Your task to perform on an android device: Go to Maps Image 0: 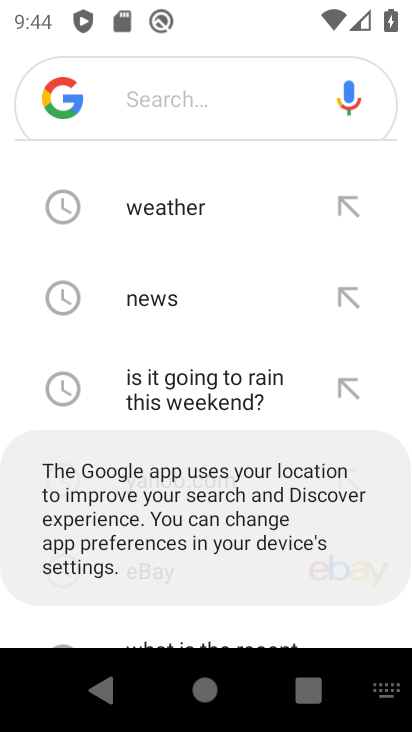
Step 0: press home button
Your task to perform on an android device: Go to Maps Image 1: 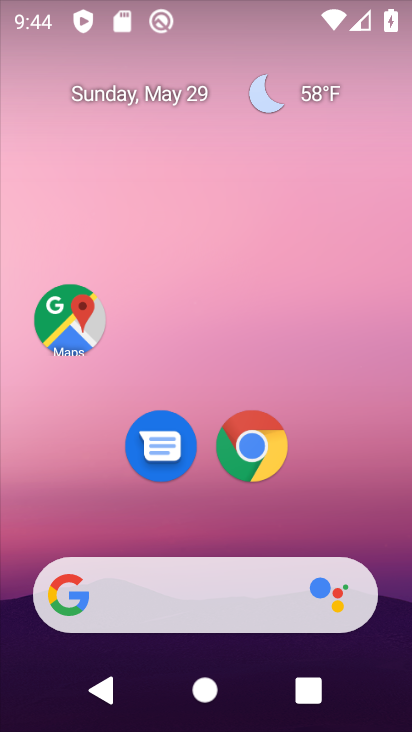
Step 1: click (71, 327)
Your task to perform on an android device: Go to Maps Image 2: 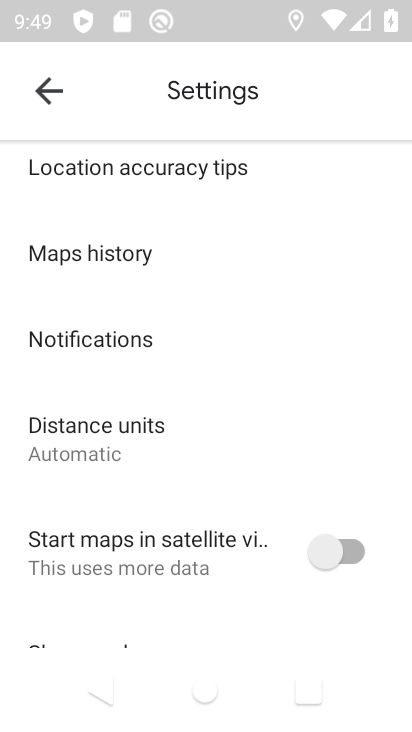
Step 2: press home button
Your task to perform on an android device: Go to Maps Image 3: 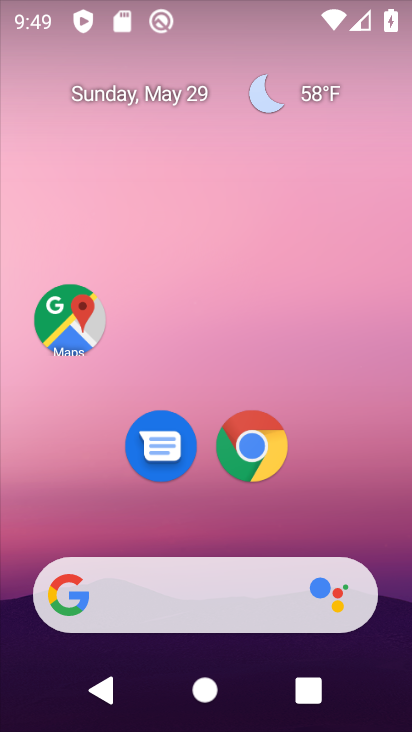
Step 3: click (74, 325)
Your task to perform on an android device: Go to Maps Image 4: 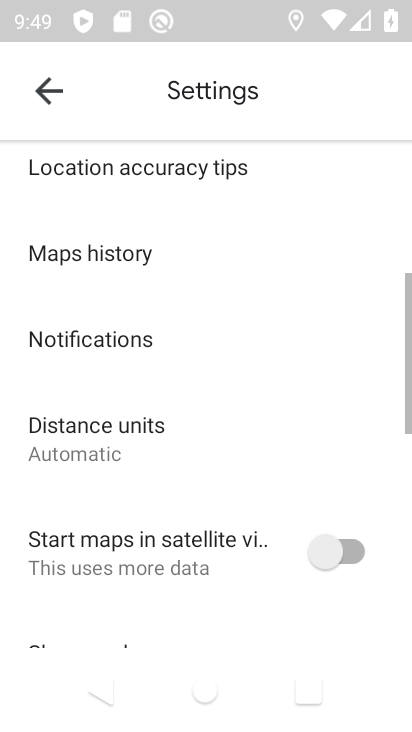
Step 4: click (47, 92)
Your task to perform on an android device: Go to Maps Image 5: 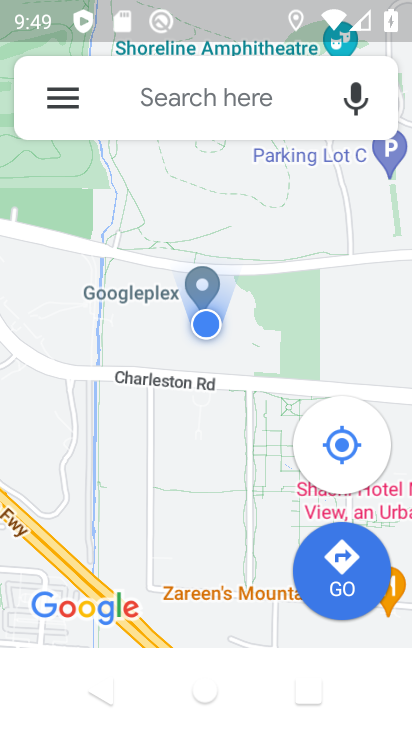
Step 5: task complete